Your task to perform on an android device: change the clock display to digital Image 0: 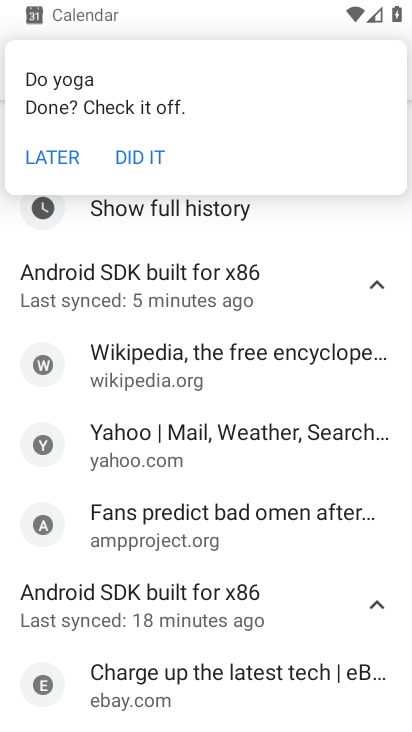
Step 0: press home button
Your task to perform on an android device: change the clock display to digital Image 1: 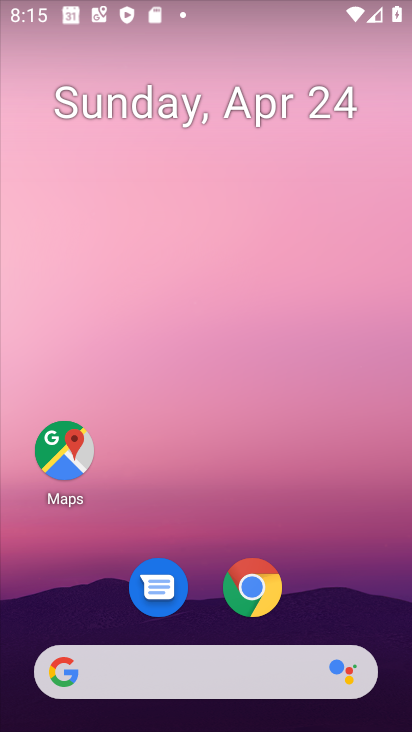
Step 1: drag from (330, 513) to (277, 0)
Your task to perform on an android device: change the clock display to digital Image 2: 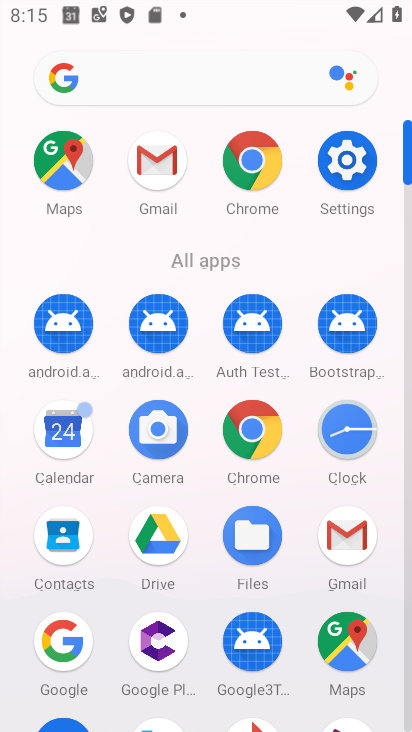
Step 2: click (347, 449)
Your task to perform on an android device: change the clock display to digital Image 3: 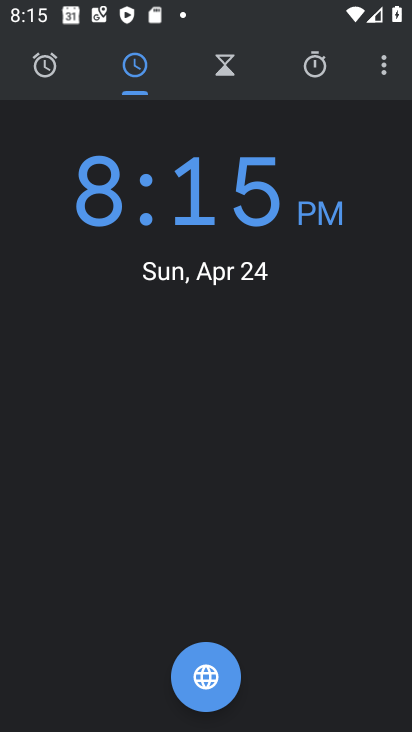
Step 3: click (373, 78)
Your task to perform on an android device: change the clock display to digital Image 4: 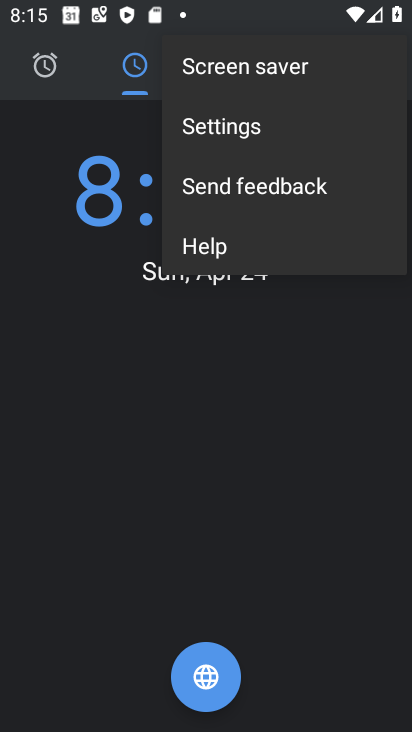
Step 4: click (281, 133)
Your task to perform on an android device: change the clock display to digital Image 5: 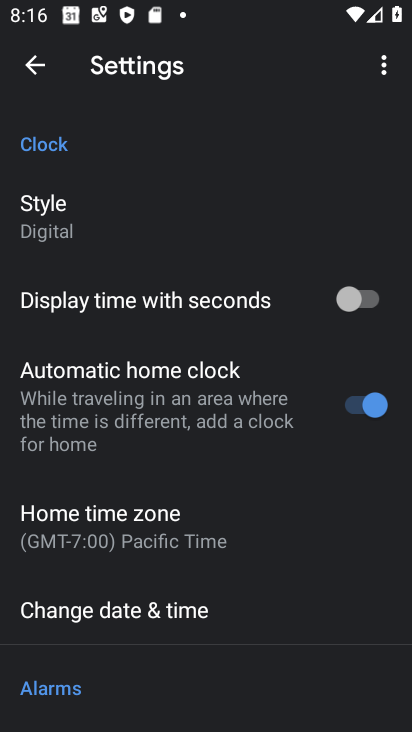
Step 5: click (205, 217)
Your task to perform on an android device: change the clock display to digital Image 6: 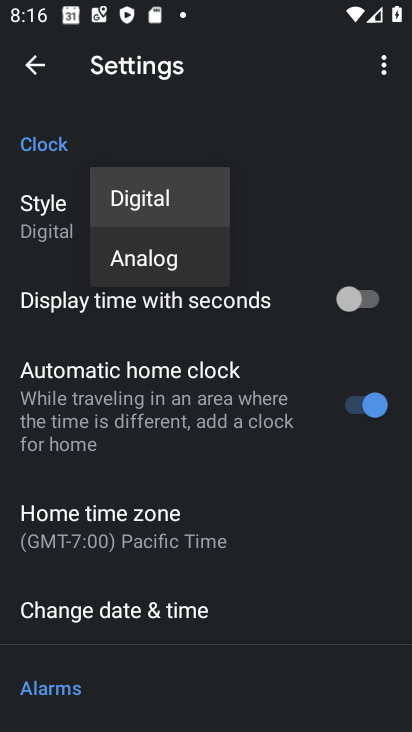
Step 6: task complete